Your task to perform on an android device: change notifications settings Image 0: 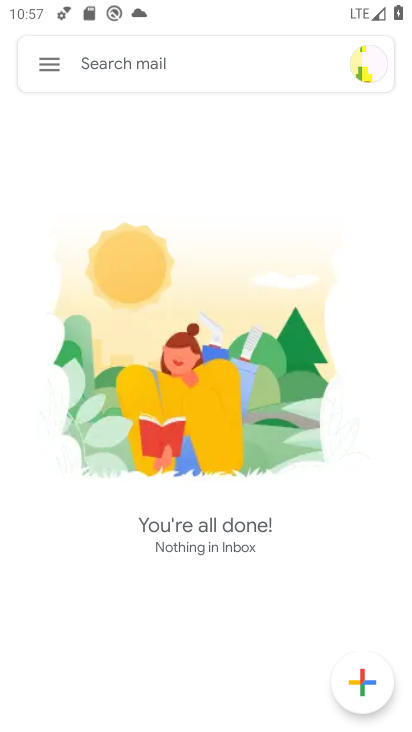
Step 0: press home button
Your task to perform on an android device: change notifications settings Image 1: 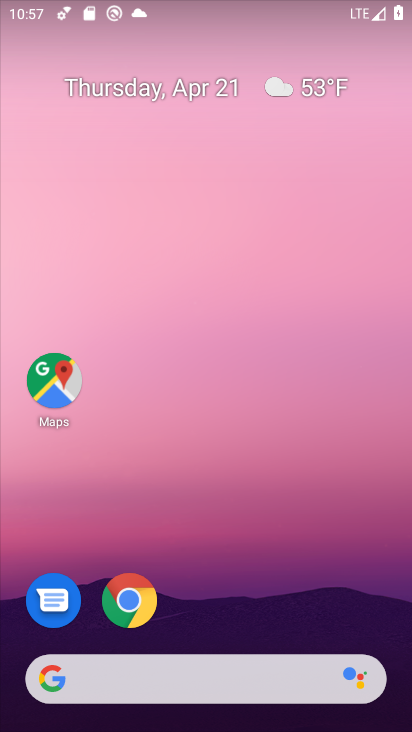
Step 1: drag from (263, 606) to (272, 48)
Your task to perform on an android device: change notifications settings Image 2: 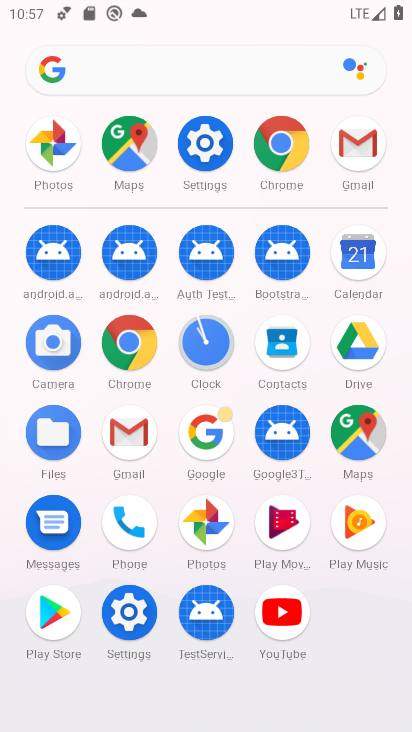
Step 2: click (201, 136)
Your task to perform on an android device: change notifications settings Image 3: 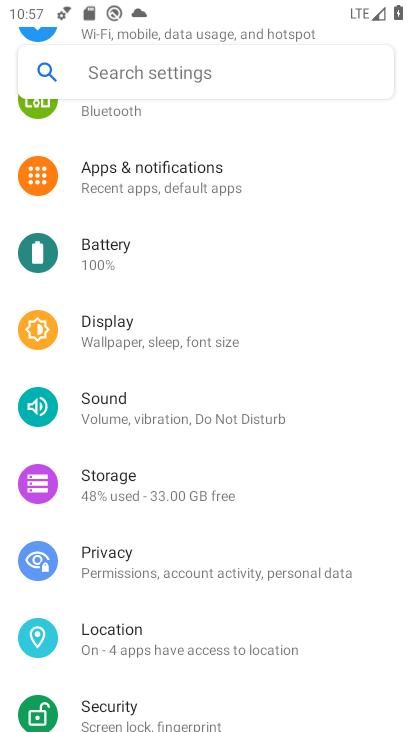
Step 3: click (200, 172)
Your task to perform on an android device: change notifications settings Image 4: 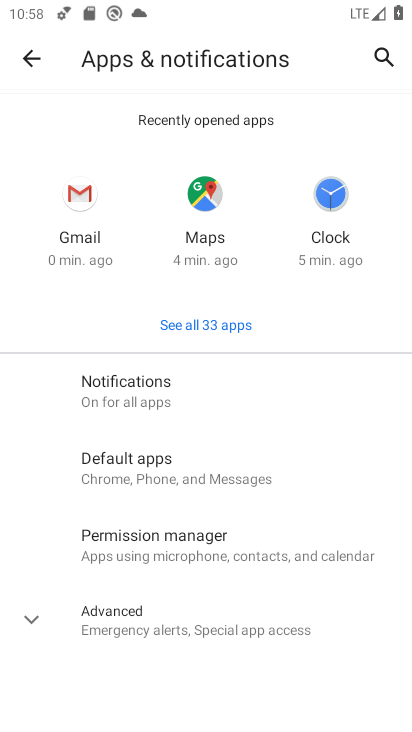
Step 4: click (160, 404)
Your task to perform on an android device: change notifications settings Image 5: 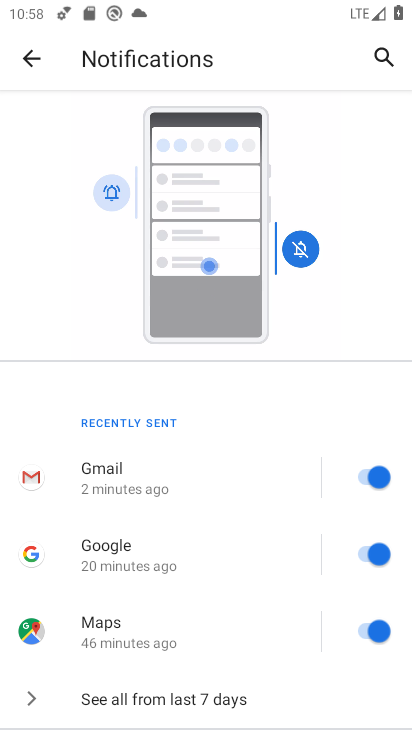
Step 5: click (380, 468)
Your task to perform on an android device: change notifications settings Image 6: 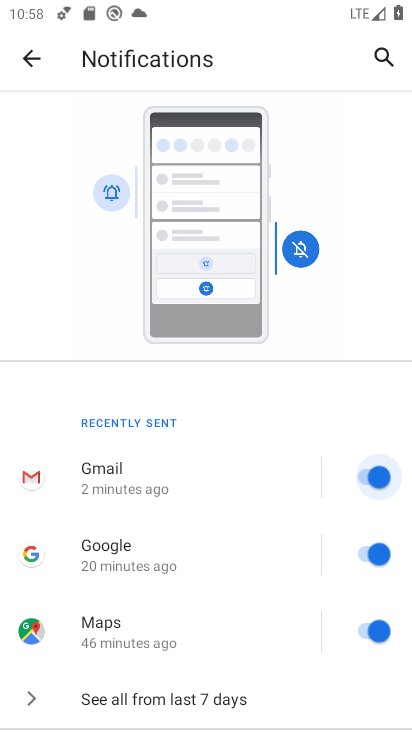
Step 6: click (383, 553)
Your task to perform on an android device: change notifications settings Image 7: 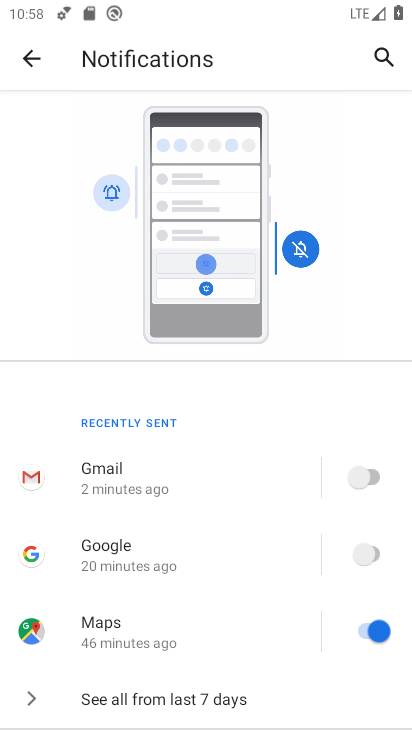
Step 7: click (375, 640)
Your task to perform on an android device: change notifications settings Image 8: 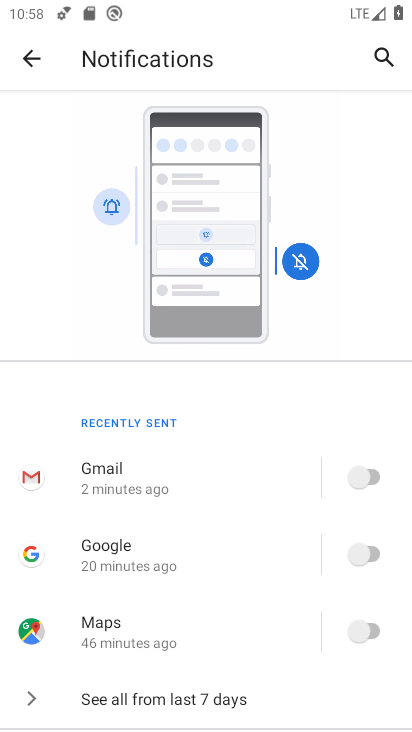
Step 8: task complete